Your task to perform on an android device: install app "Truecaller" Image 0: 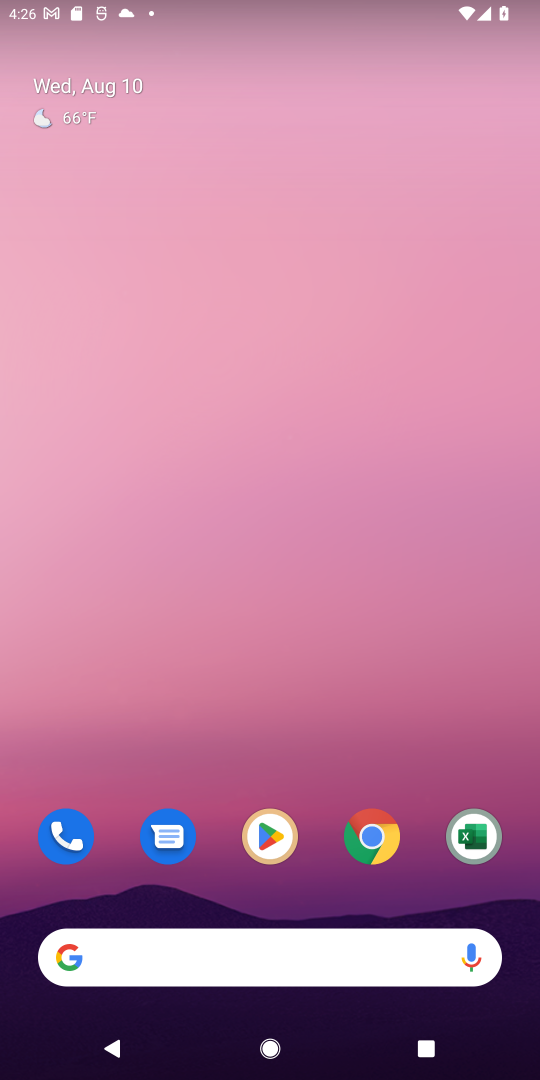
Step 0: drag from (291, 861) to (372, 215)
Your task to perform on an android device: install app "Truecaller" Image 1: 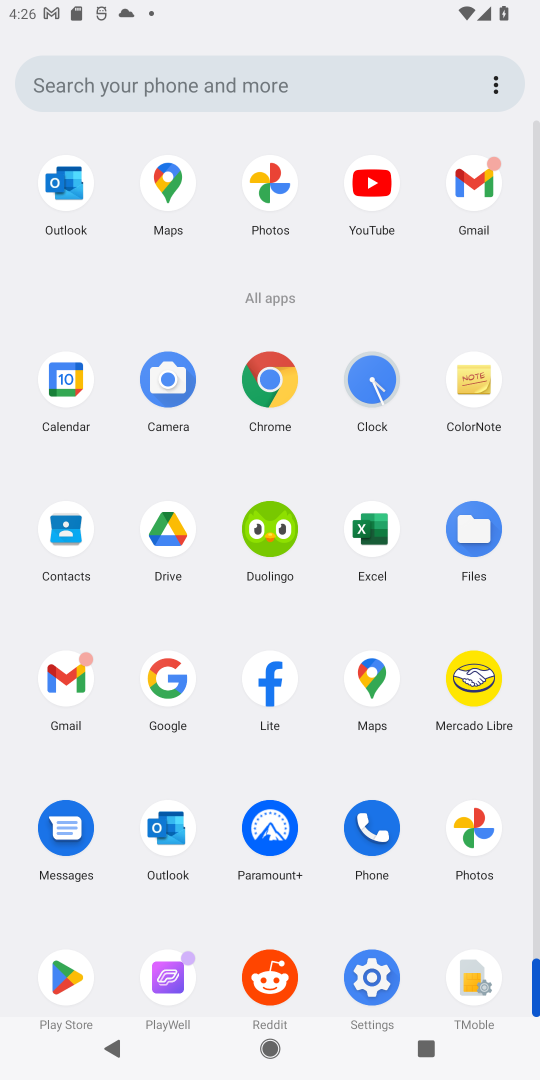
Step 1: drag from (102, 901) to (268, 334)
Your task to perform on an android device: install app "Truecaller" Image 2: 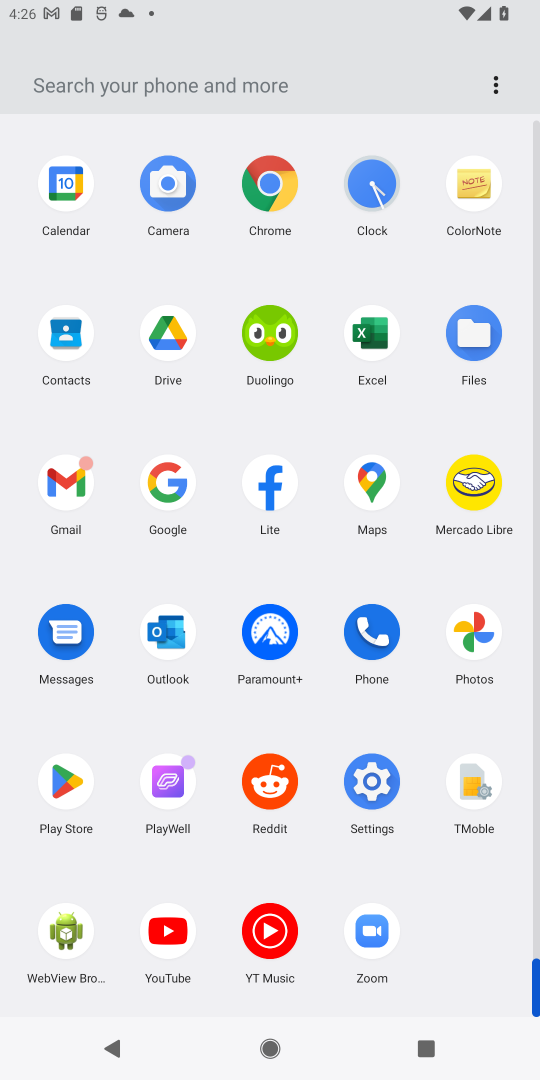
Step 2: click (63, 772)
Your task to perform on an android device: install app "Truecaller" Image 3: 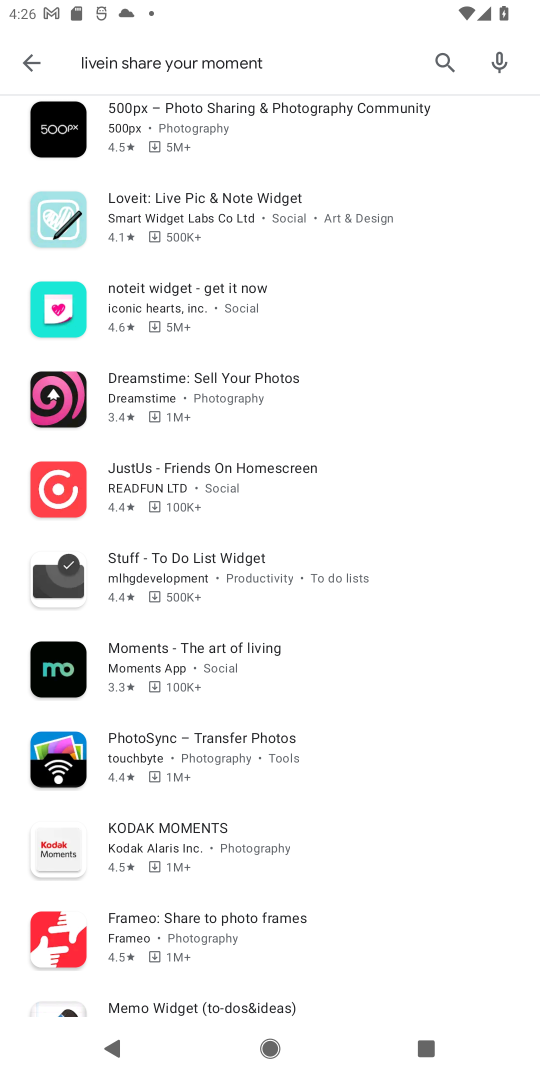
Step 3: click (16, 66)
Your task to perform on an android device: install app "Truecaller" Image 4: 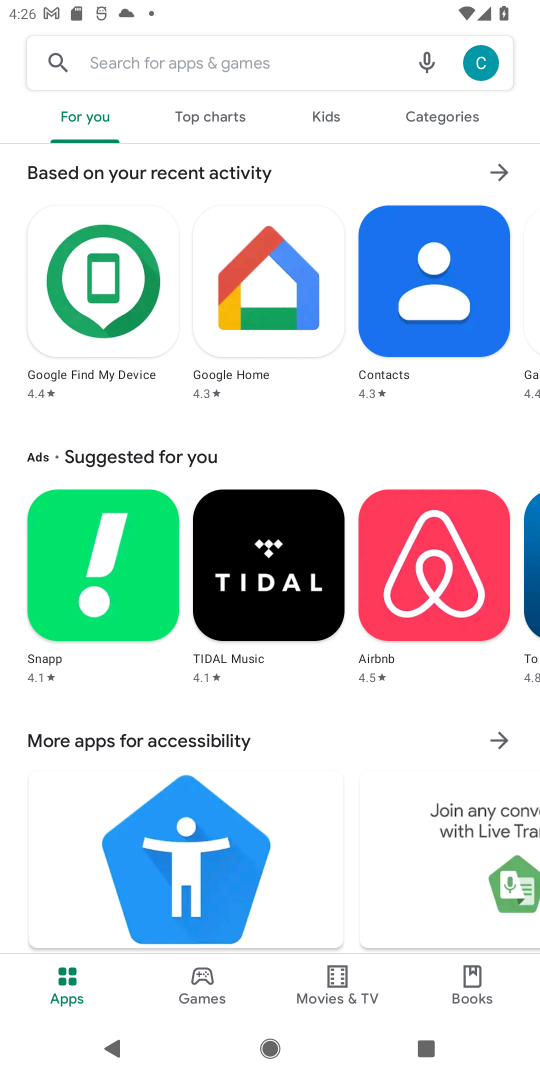
Step 4: click (241, 56)
Your task to perform on an android device: install app "Truecaller" Image 5: 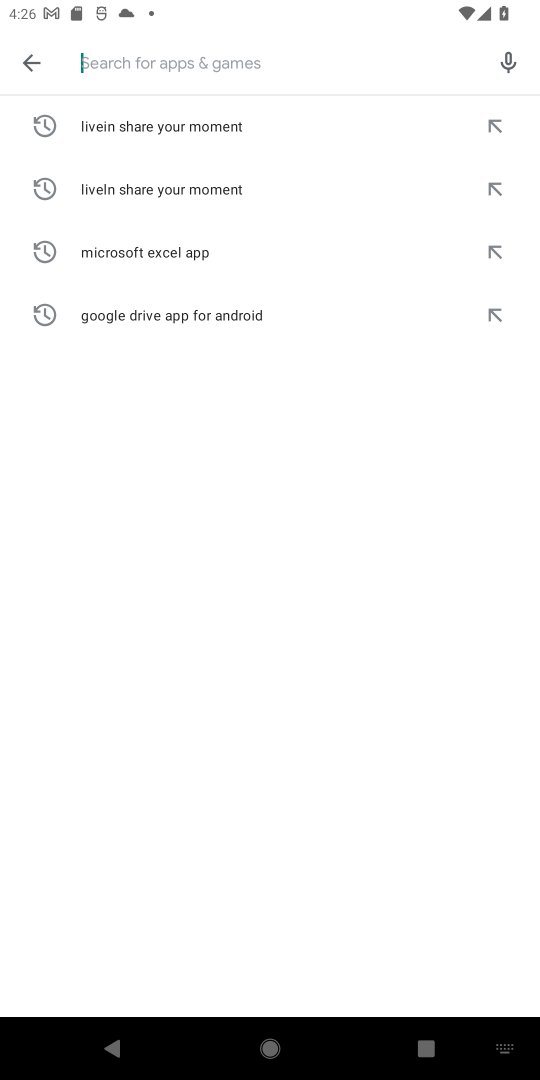
Step 5: type "Truecaller" "
Your task to perform on an android device: install app "Truecaller" Image 6: 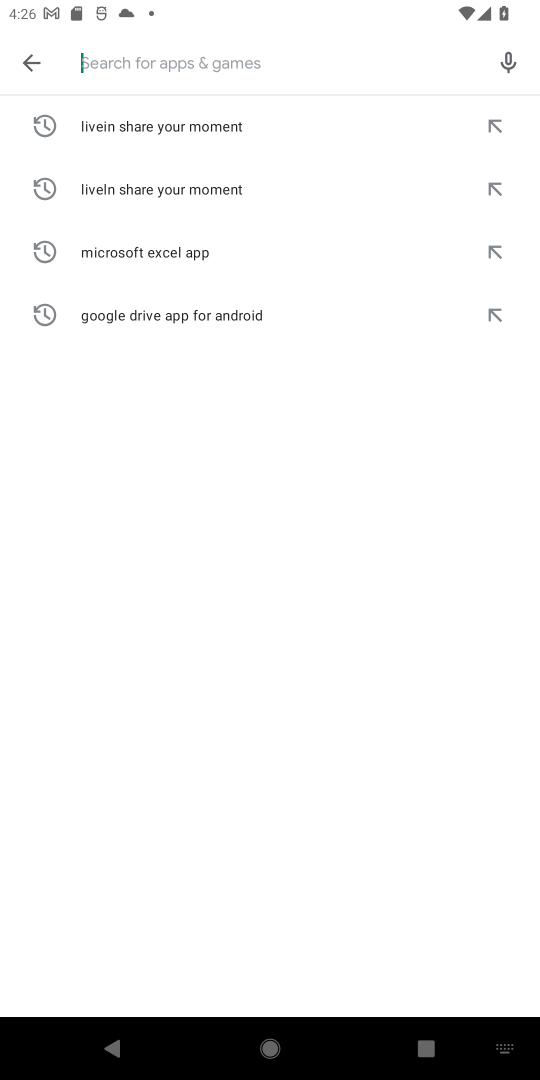
Step 6: click (290, 50)
Your task to perform on an android device: install app "Truecaller" Image 7: 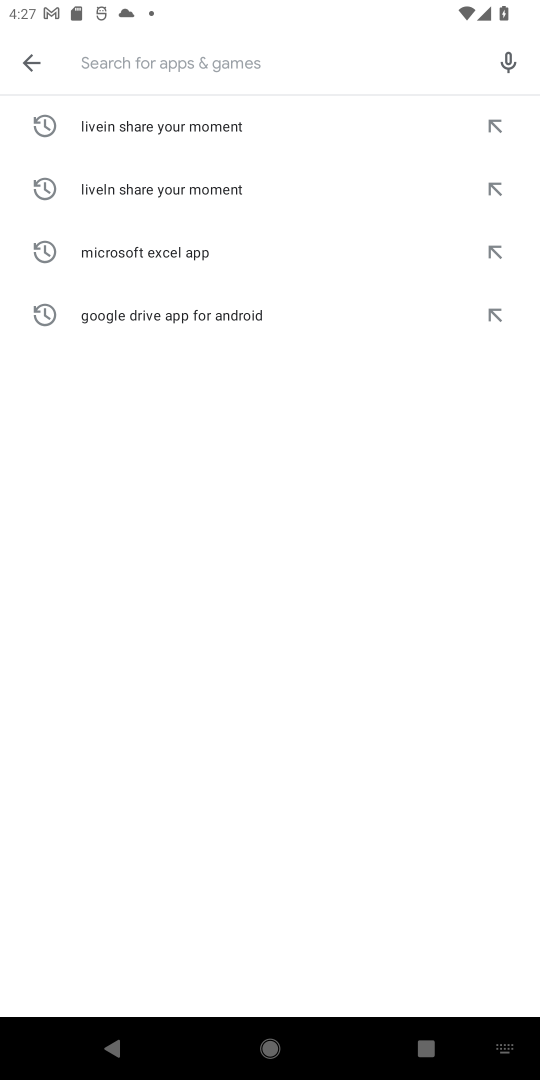
Step 7: type "truecaller "
Your task to perform on an android device: install app "Truecaller" Image 8: 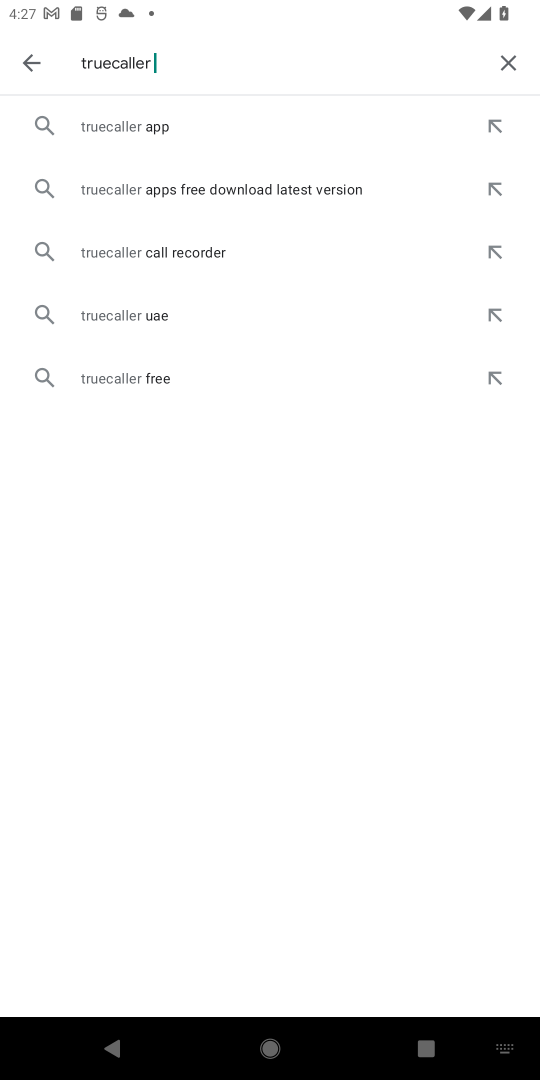
Step 8: click (125, 123)
Your task to perform on an android device: install app "Truecaller" Image 9: 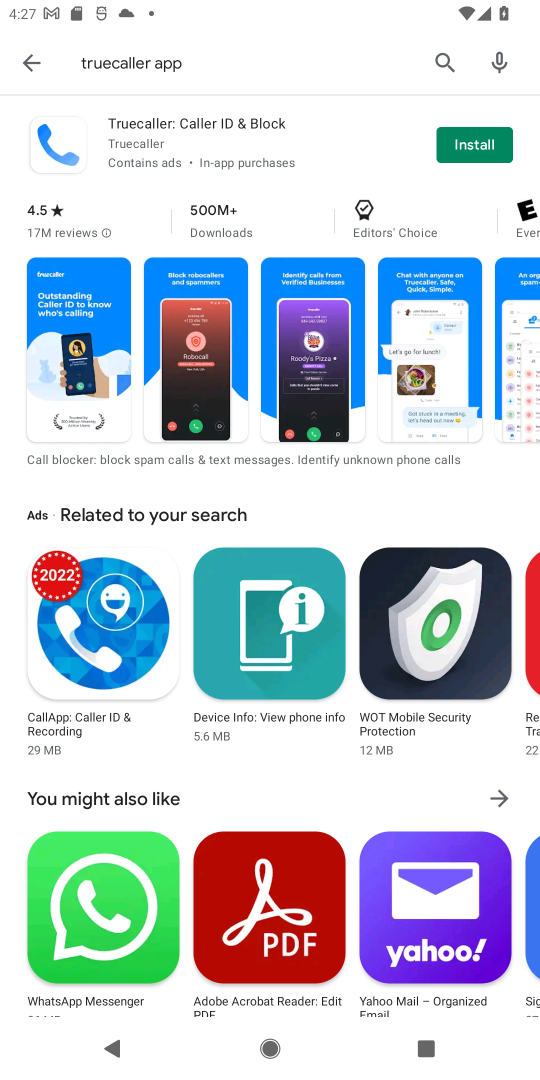
Step 9: click (467, 140)
Your task to perform on an android device: install app "Truecaller" Image 10: 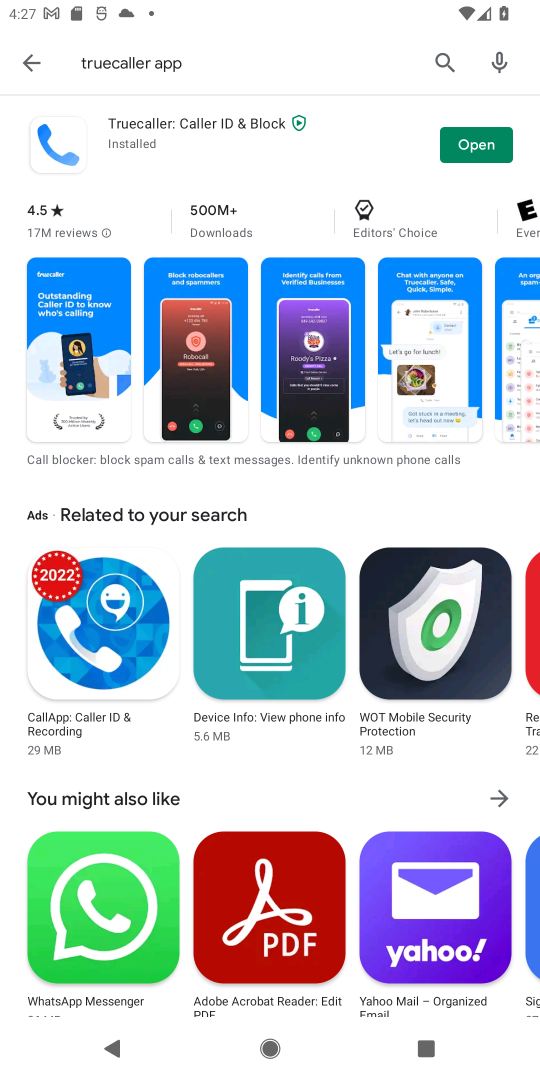
Step 10: click (491, 156)
Your task to perform on an android device: install app "Truecaller" Image 11: 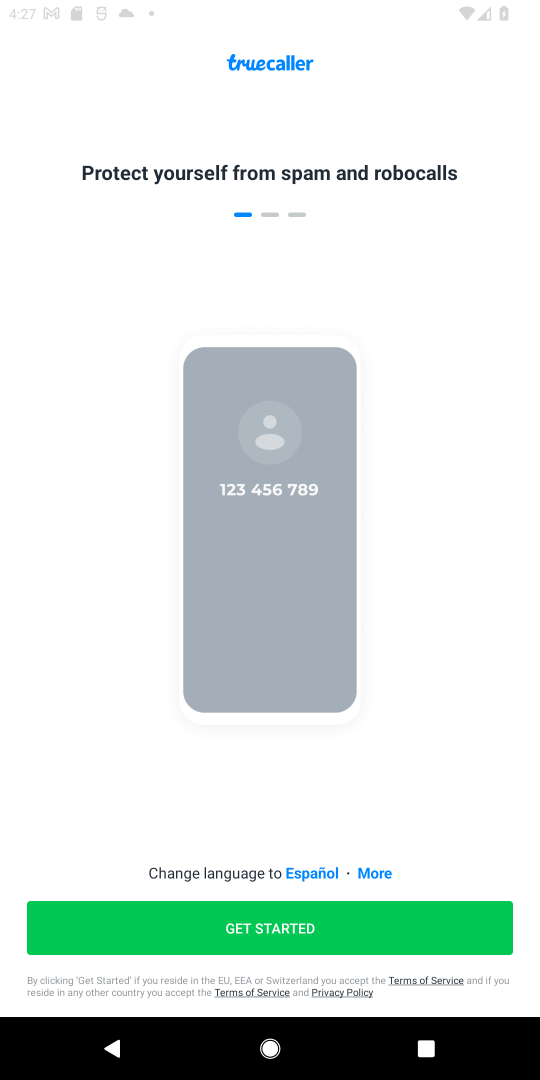
Step 11: task complete